Your task to perform on an android device: Open notification settings Image 0: 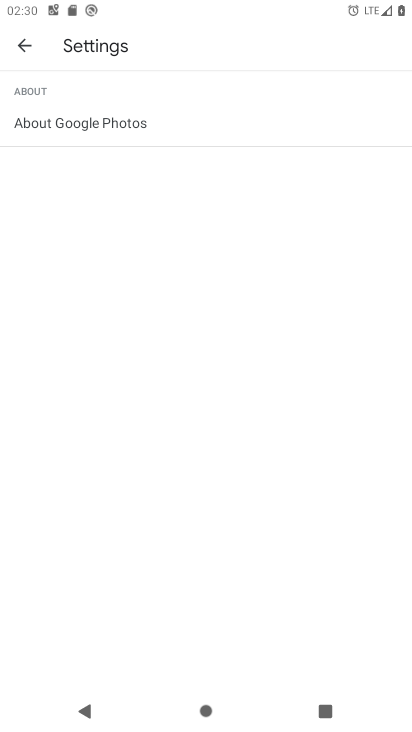
Step 0: press home button
Your task to perform on an android device: Open notification settings Image 1: 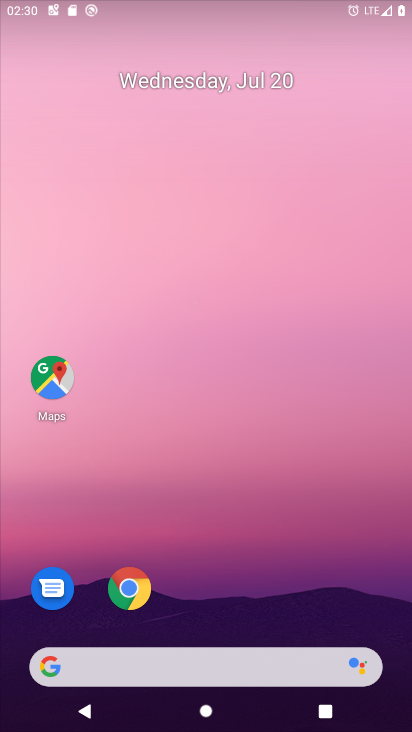
Step 1: drag from (209, 562) to (213, 402)
Your task to perform on an android device: Open notification settings Image 2: 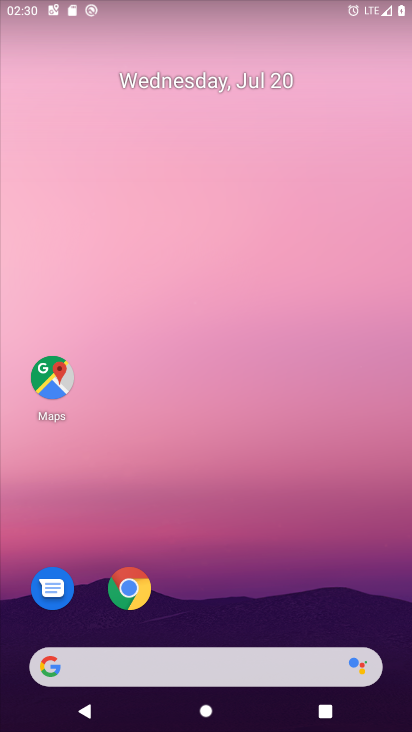
Step 2: drag from (210, 543) to (209, 172)
Your task to perform on an android device: Open notification settings Image 3: 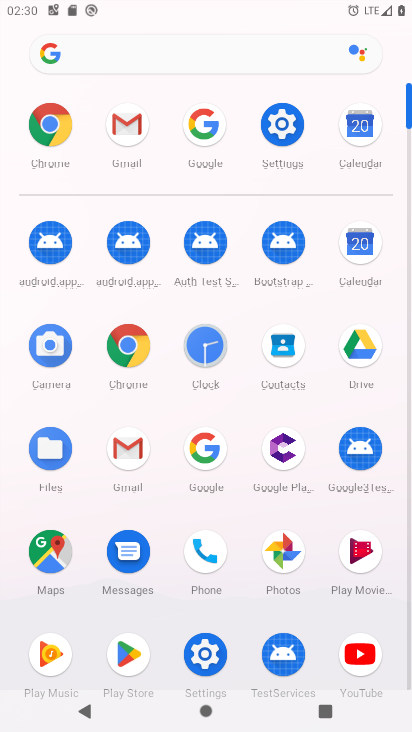
Step 3: click (277, 124)
Your task to perform on an android device: Open notification settings Image 4: 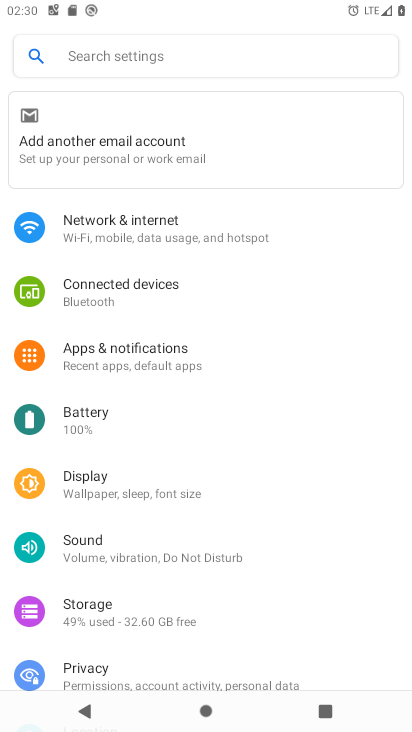
Step 4: click (119, 369)
Your task to perform on an android device: Open notification settings Image 5: 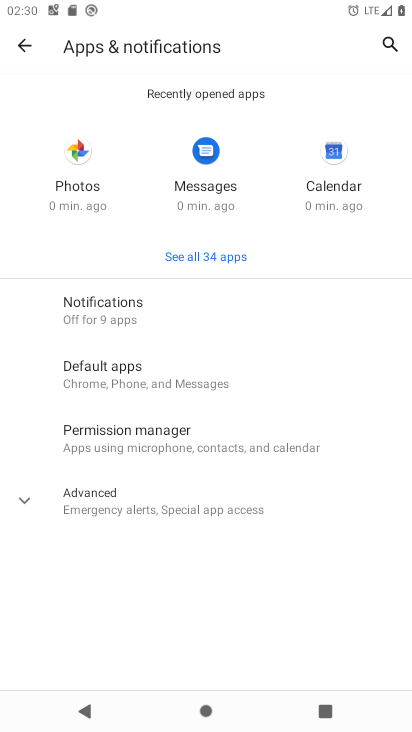
Step 5: click (149, 312)
Your task to perform on an android device: Open notification settings Image 6: 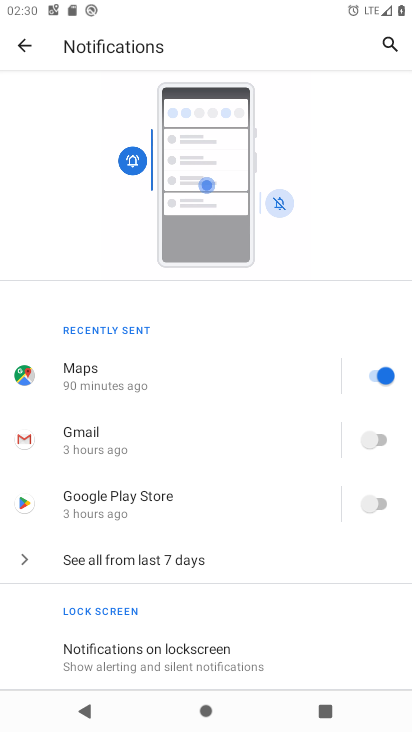
Step 6: task complete